Your task to perform on an android device: See recent photos Image 0: 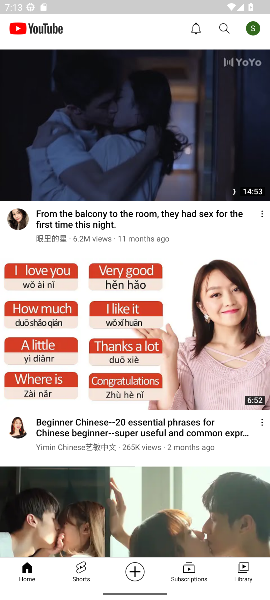
Step 0: press home button
Your task to perform on an android device: See recent photos Image 1: 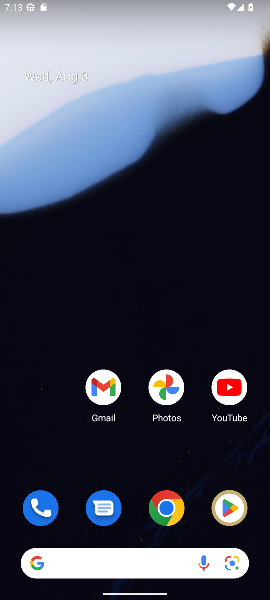
Step 1: click (169, 387)
Your task to perform on an android device: See recent photos Image 2: 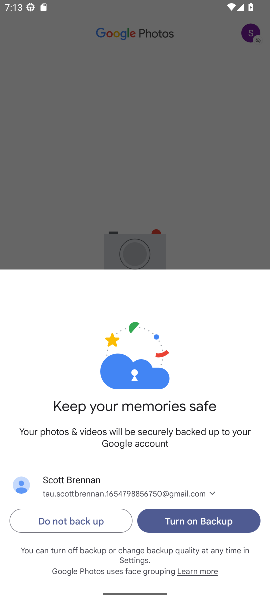
Step 2: click (247, 519)
Your task to perform on an android device: See recent photos Image 3: 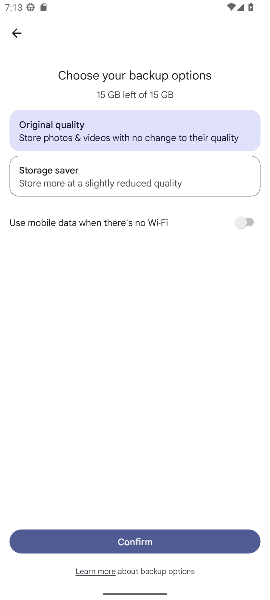
Step 3: click (215, 542)
Your task to perform on an android device: See recent photos Image 4: 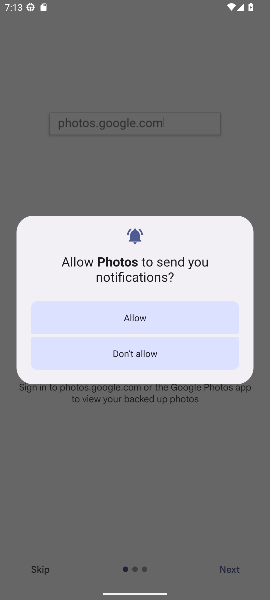
Step 4: click (166, 316)
Your task to perform on an android device: See recent photos Image 5: 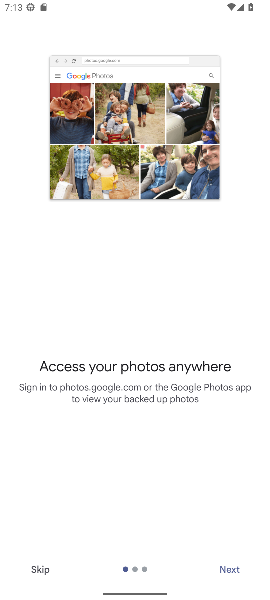
Step 5: click (41, 575)
Your task to perform on an android device: See recent photos Image 6: 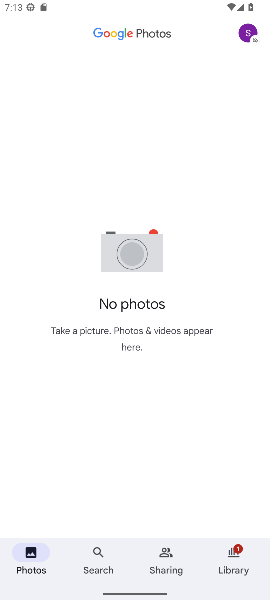
Step 6: click (41, 575)
Your task to perform on an android device: See recent photos Image 7: 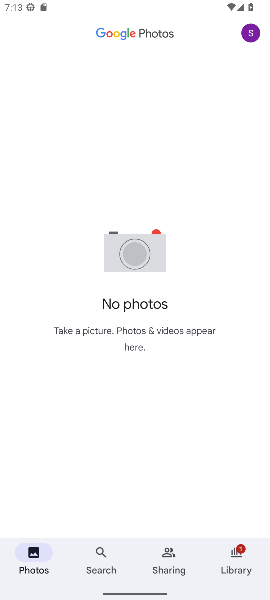
Step 7: task complete